Your task to perform on an android device: open sync settings in chrome Image 0: 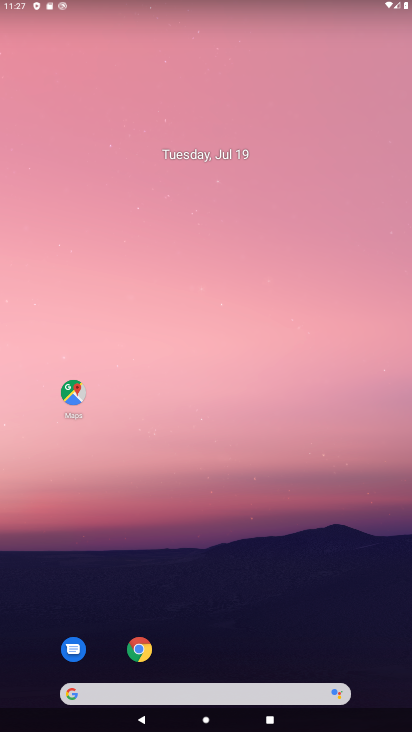
Step 0: drag from (263, 582) to (221, 134)
Your task to perform on an android device: open sync settings in chrome Image 1: 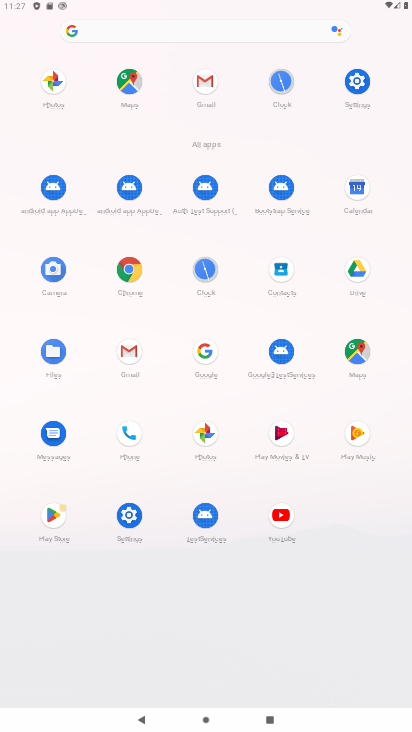
Step 1: click (141, 267)
Your task to perform on an android device: open sync settings in chrome Image 2: 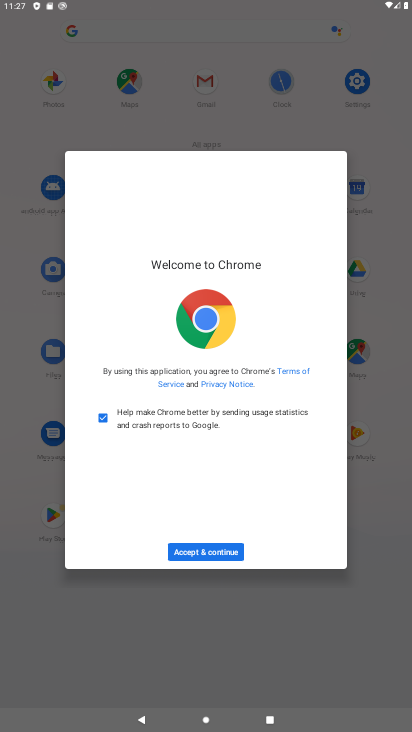
Step 2: click (196, 559)
Your task to perform on an android device: open sync settings in chrome Image 3: 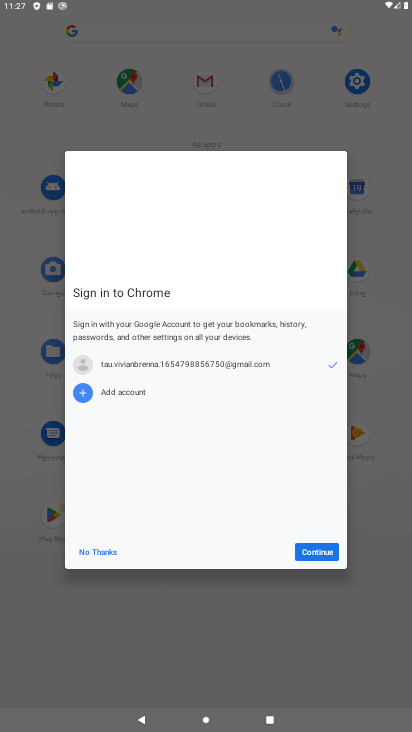
Step 3: click (317, 554)
Your task to perform on an android device: open sync settings in chrome Image 4: 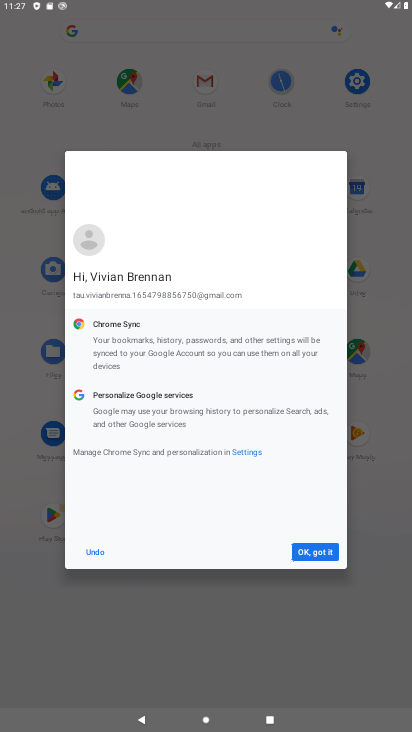
Step 4: click (317, 554)
Your task to perform on an android device: open sync settings in chrome Image 5: 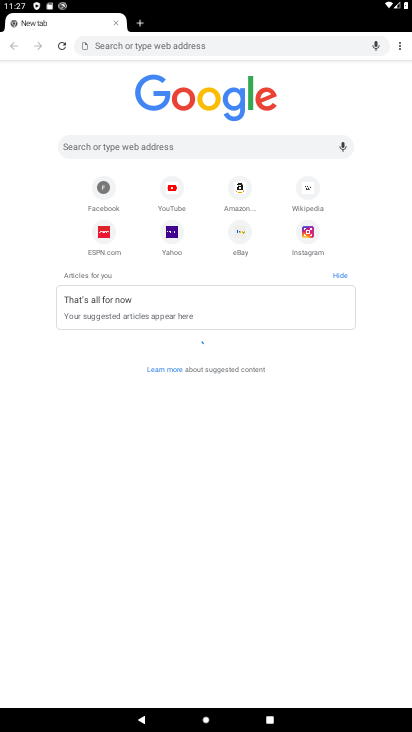
Step 5: task complete